Your task to perform on an android device: Open location settings Image 0: 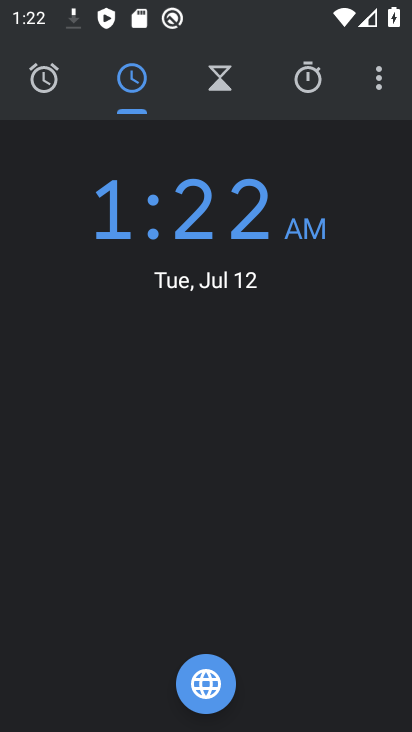
Step 0: press home button
Your task to perform on an android device: Open location settings Image 1: 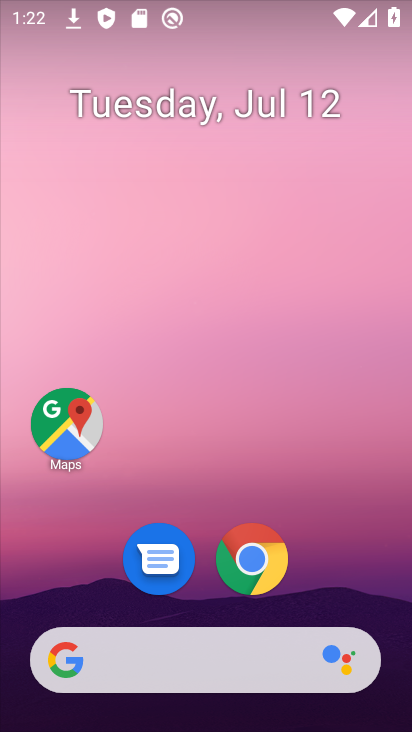
Step 1: drag from (334, 593) to (356, 170)
Your task to perform on an android device: Open location settings Image 2: 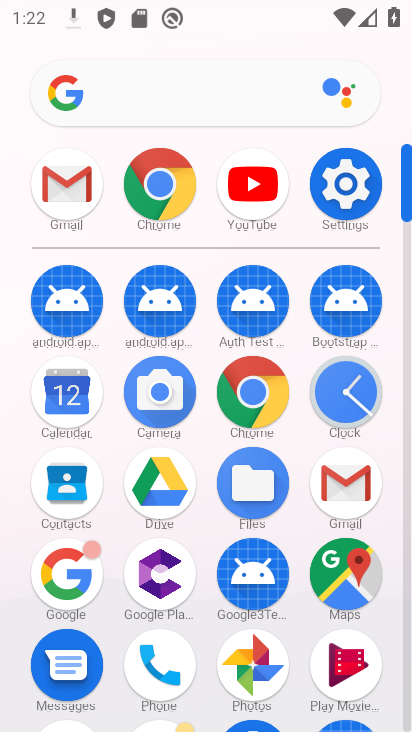
Step 2: click (357, 198)
Your task to perform on an android device: Open location settings Image 3: 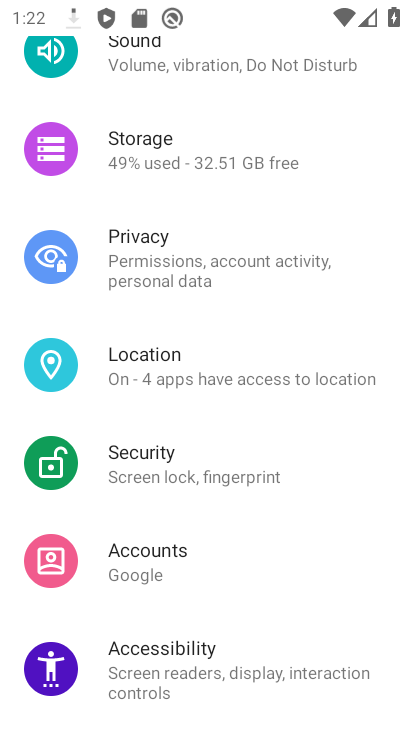
Step 3: drag from (361, 207) to (367, 343)
Your task to perform on an android device: Open location settings Image 4: 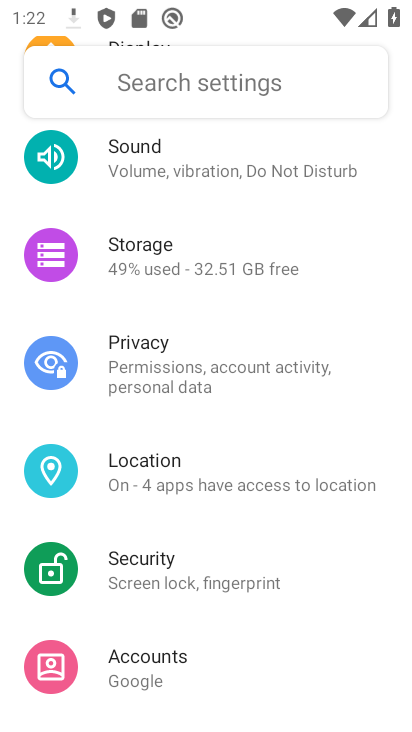
Step 4: drag from (371, 203) to (371, 336)
Your task to perform on an android device: Open location settings Image 5: 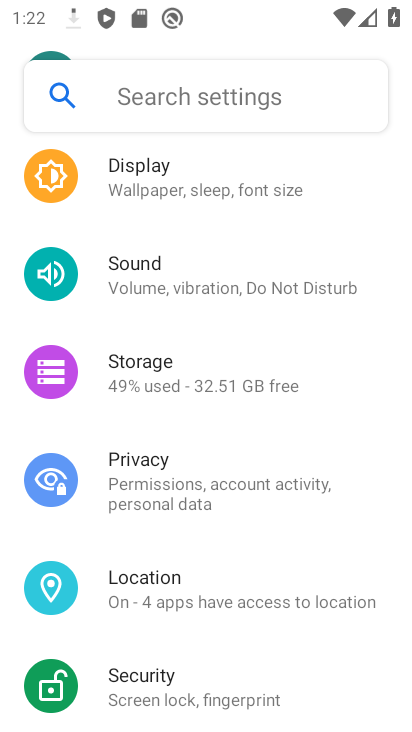
Step 5: drag from (361, 181) to (360, 409)
Your task to perform on an android device: Open location settings Image 6: 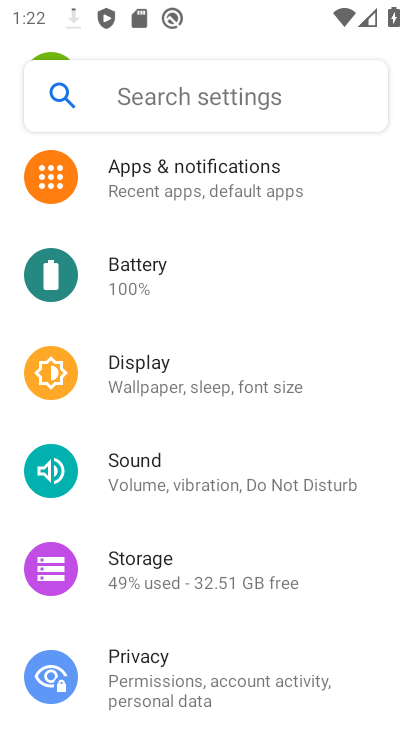
Step 6: drag from (356, 226) to (356, 387)
Your task to perform on an android device: Open location settings Image 7: 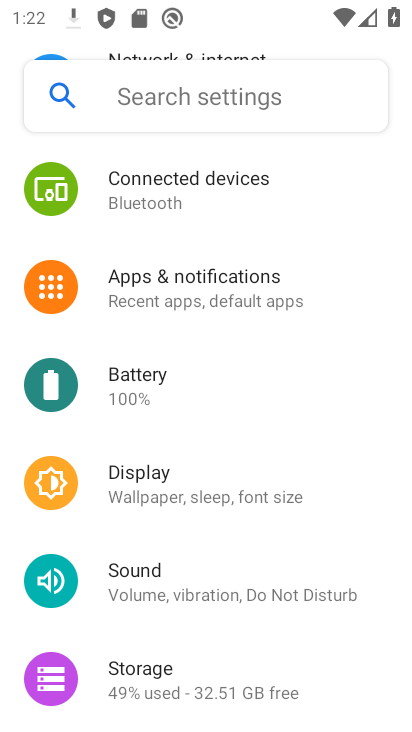
Step 7: drag from (352, 205) to (350, 351)
Your task to perform on an android device: Open location settings Image 8: 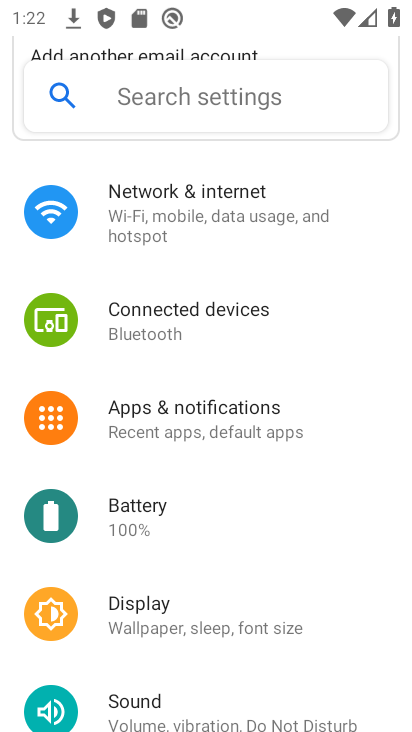
Step 8: drag from (357, 182) to (360, 351)
Your task to perform on an android device: Open location settings Image 9: 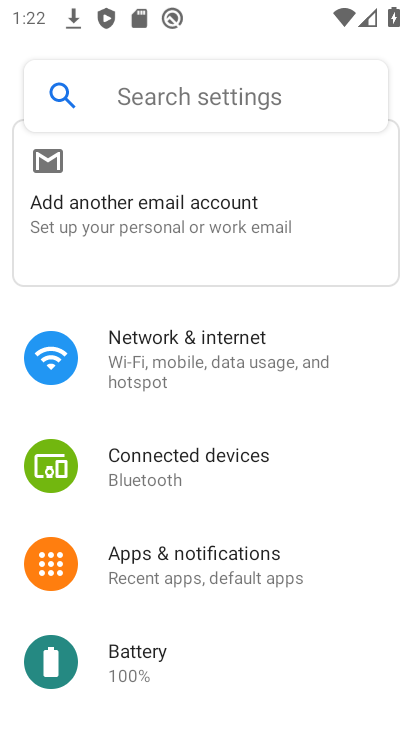
Step 9: drag from (332, 495) to (336, 388)
Your task to perform on an android device: Open location settings Image 10: 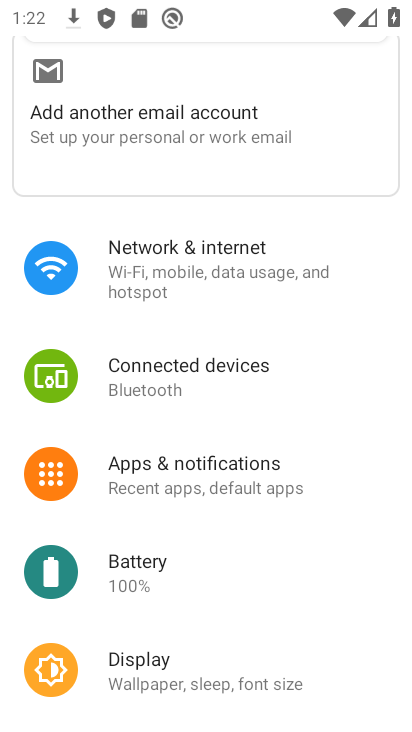
Step 10: drag from (345, 531) to (350, 388)
Your task to perform on an android device: Open location settings Image 11: 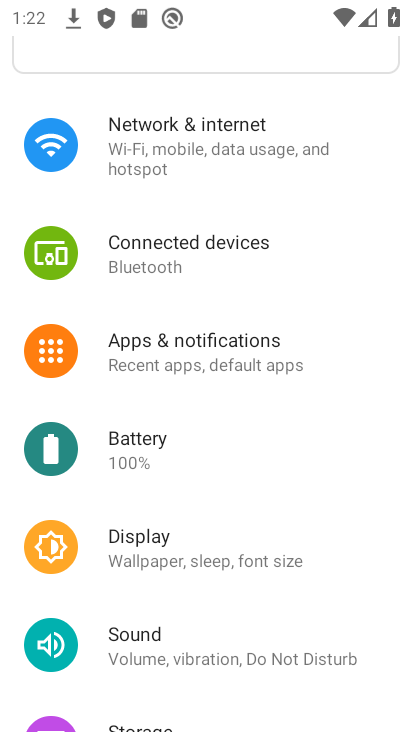
Step 11: drag from (354, 590) to (350, 347)
Your task to perform on an android device: Open location settings Image 12: 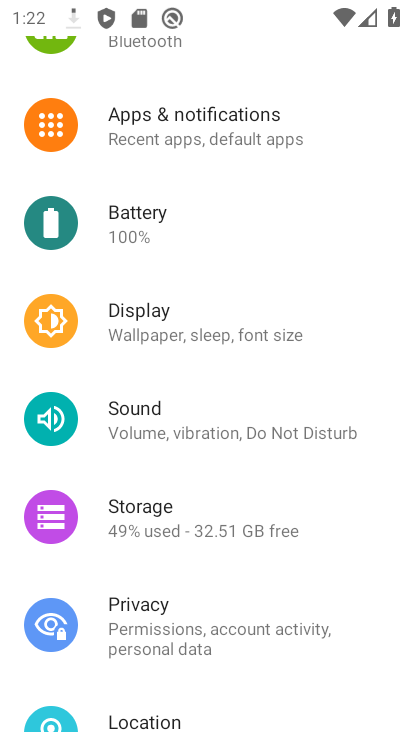
Step 12: drag from (370, 541) to (374, 390)
Your task to perform on an android device: Open location settings Image 13: 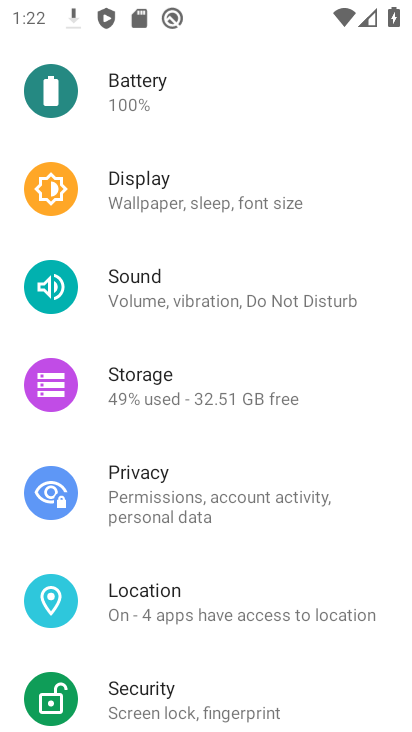
Step 13: drag from (354, 557) to (353, 433)
Your task to perform on an android device: Open location settings Image 14: 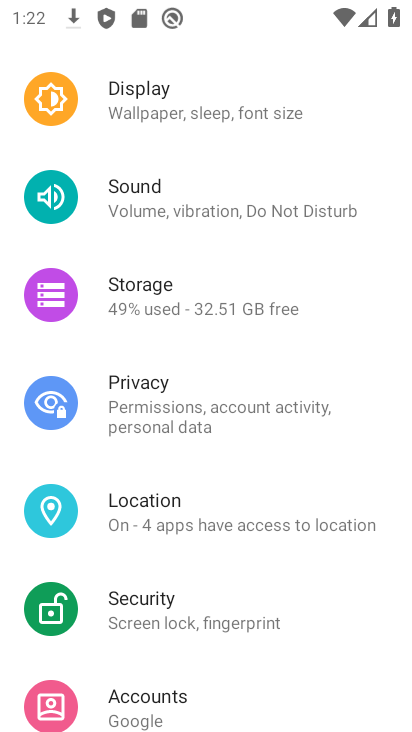
Step 14: click (299, 505)
Your task to perform on an android device: Open location settings Image 15: 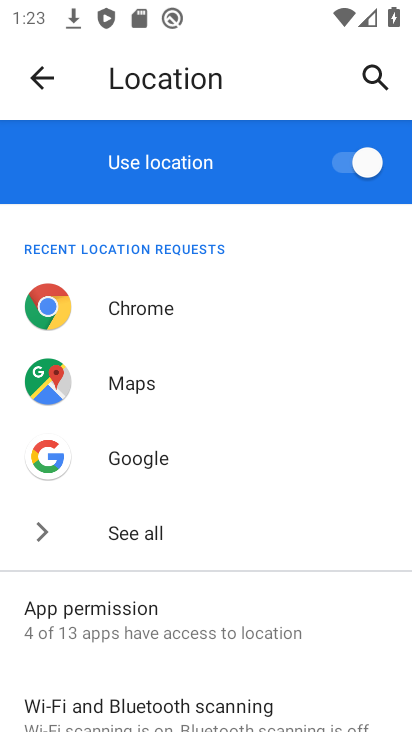
Step 15: task complete